Your task to perform on an android device: Find coffee shops on Maps Image 0: 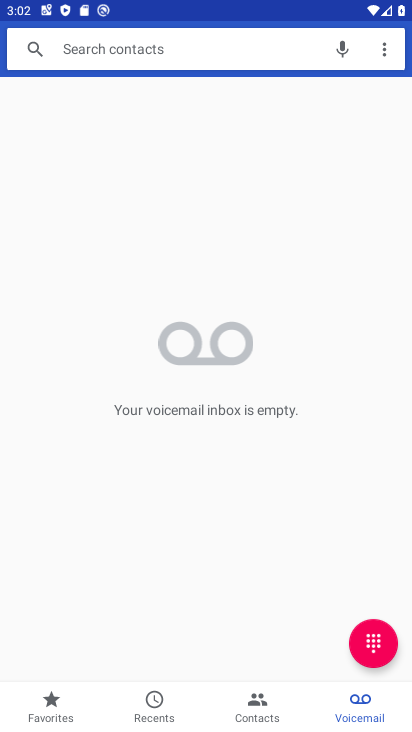
Step 0: press home button
Your task to perform on an android device: Find coffee shops on Maps Image 1: 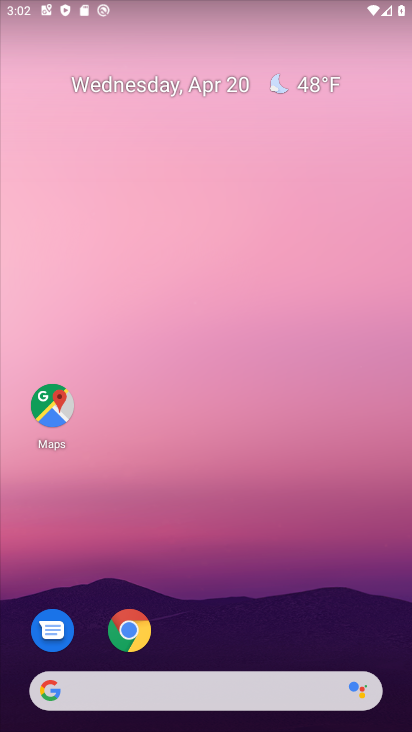
Step 1: click (53, 406)
Your task to perform on an android device: Find coffee shops on Maps Image 2: 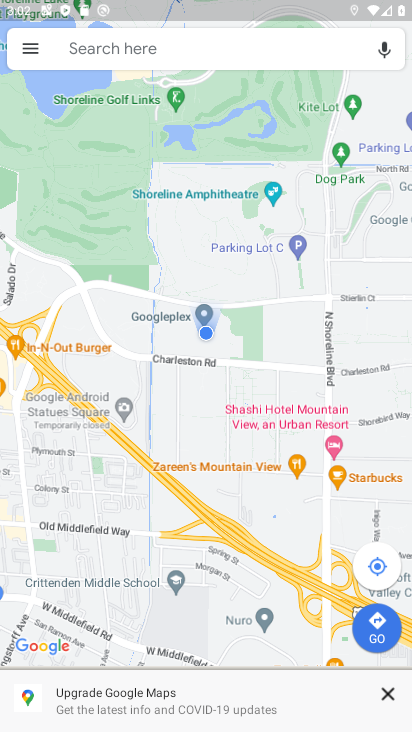
Step 2: click (219, 52)
Your task to perform on an android device: Find coffee shops on Maps Image 3: 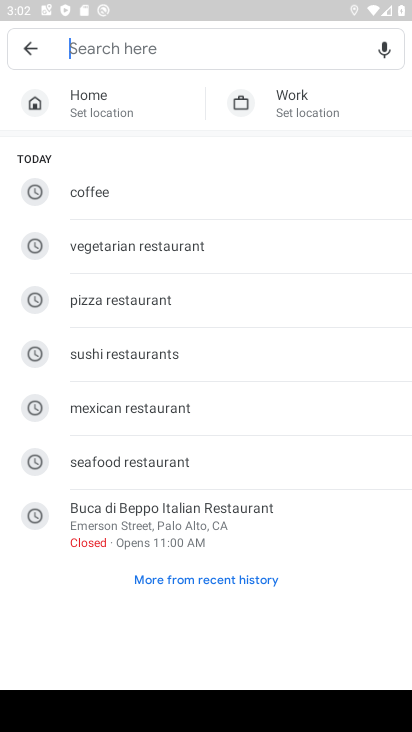
Step 3: click (80, 186)
Your task to perform on an android device: Find coffee shops on Maps Image 4: 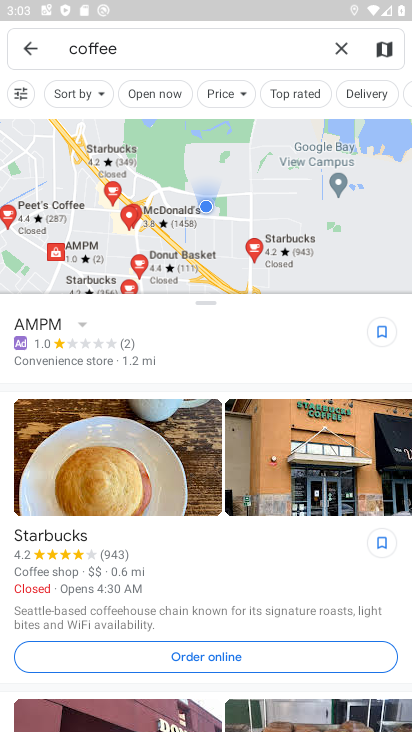
Step 4: task complete